Your task to perform on an android device: see tabs open on other devices in the chrome app Image 0: 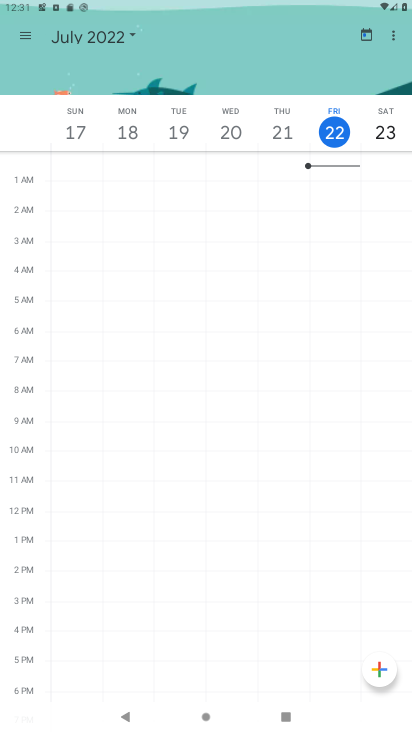
Step 0: press home button
Your task to perform on an android device: see tabs open on other devices in the chrome app Image 1: 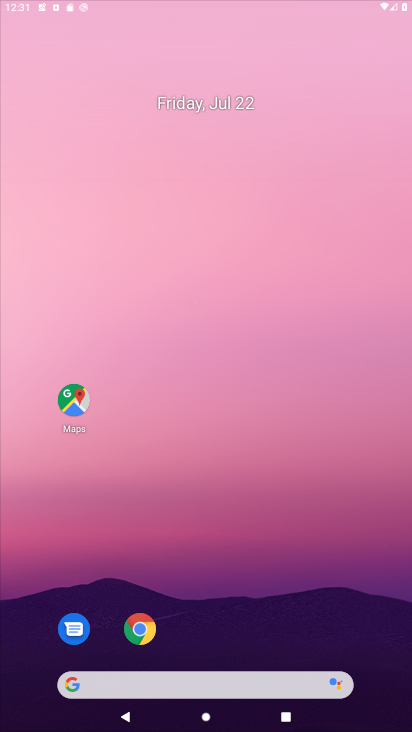
Step 1: drag from (232, 616) to (254, 175)
Your task to perform on an android device: see tabs open on other devices in the chrome app Image 2: 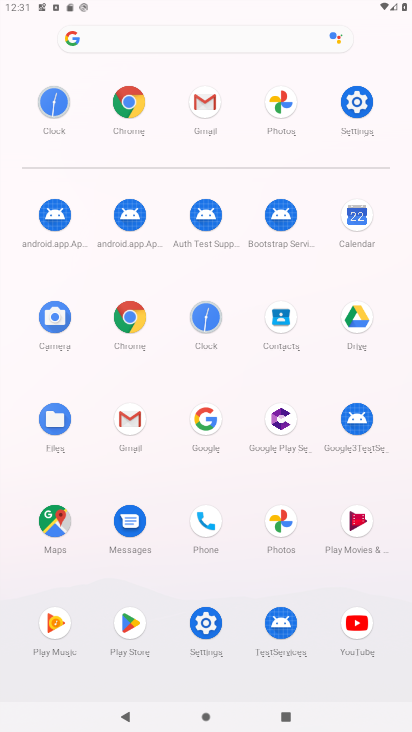
Step 2: click (128, 333)
Your task to perform on an android device: see tabs open on other devices in the chrome app Image 3: 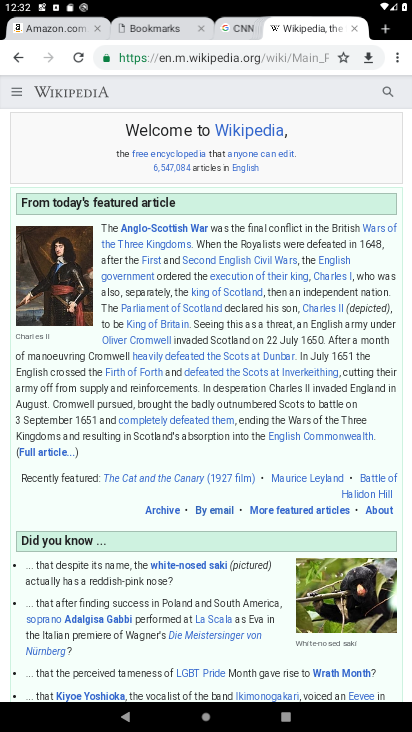
Step 3: click (396, 54)
Your task to perform on an android device: see tabs open on other devices in the chrome app Image 4: 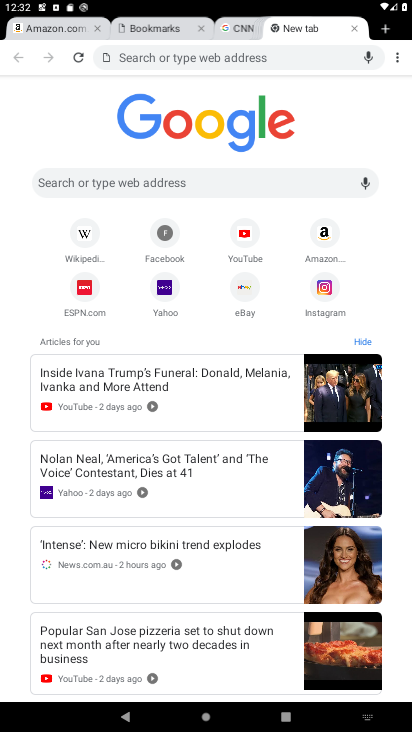
Step 4: click (399, 60)
Your task to perform on an android device: see tabs open on other devices in the chrome app Image 5: 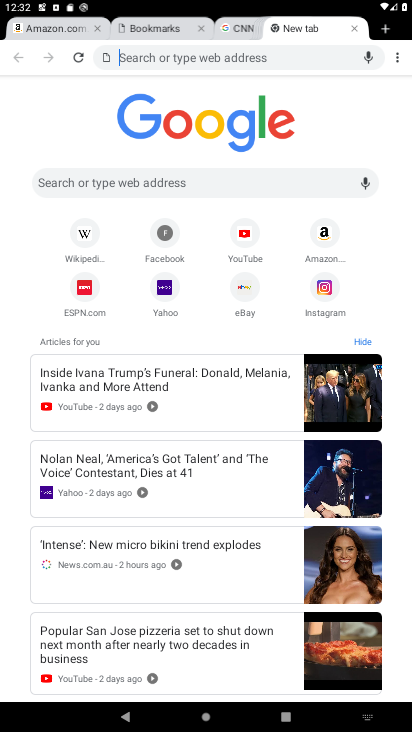
Step 5: click (393, 61)
Your task to perform on an android device: see tabs open on other devices in the chrome app Image 6: 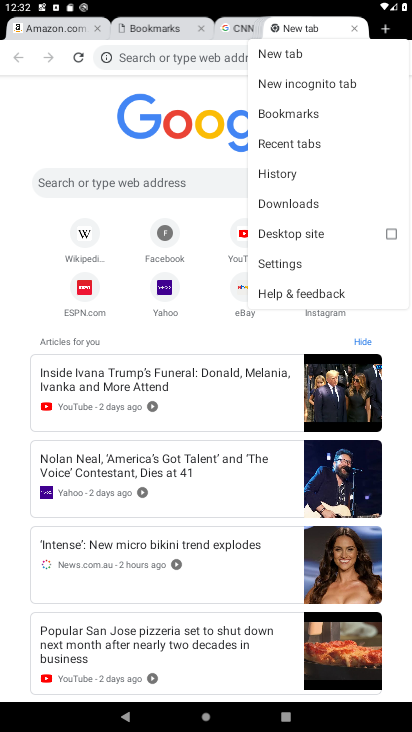
Step 6: click (335, 144)
Your task to perform on an android device: see tabs open on other devices in the chrome app Image 7: 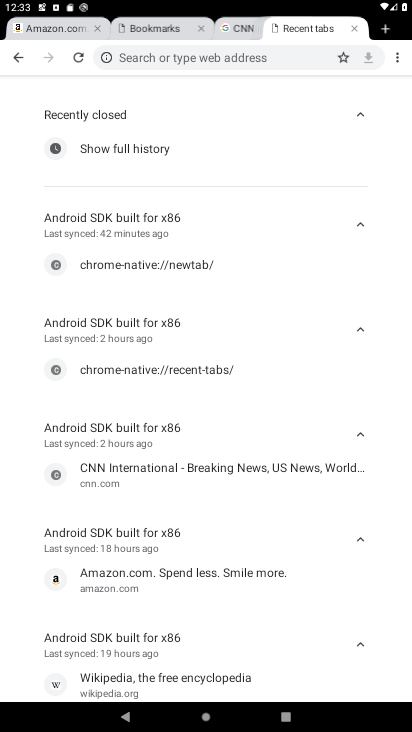
Step 7: task complete